Your task to perform on an android device: Open Wikipedia Image 0: 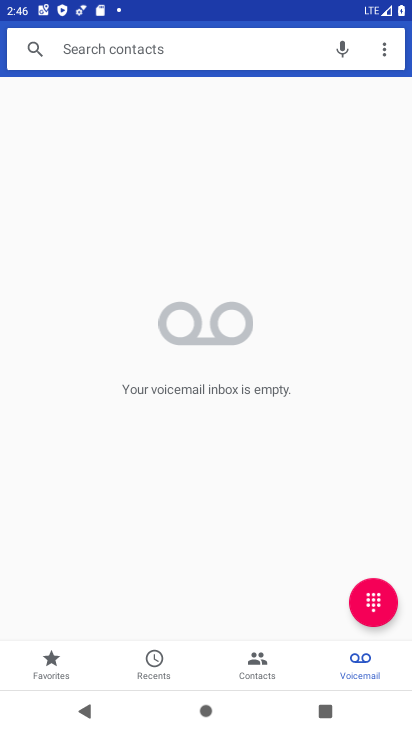
Step 0: press home button
Your task to perform on an android device: Open Wikipedia Image 1: 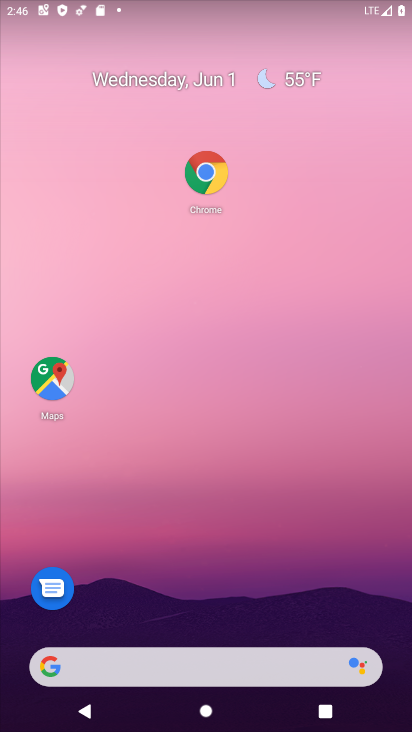
Step 1: click (221, 166)
Your task to perform on an android device: Open Wikipedia Image 2: 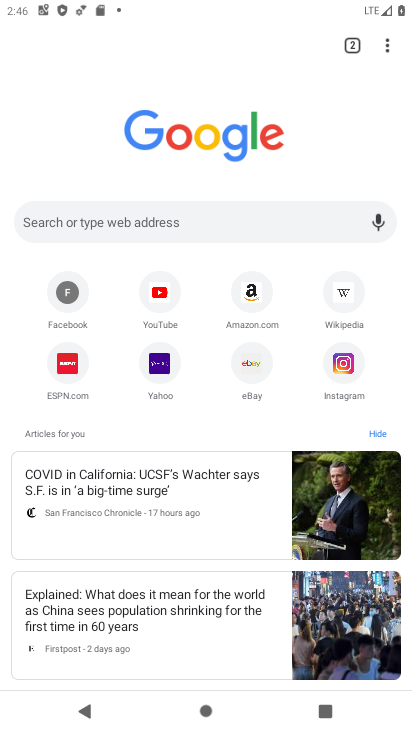
Step 2: click (336, 290)
Your task to perform on an android device: Open Wikipedia Image 3: 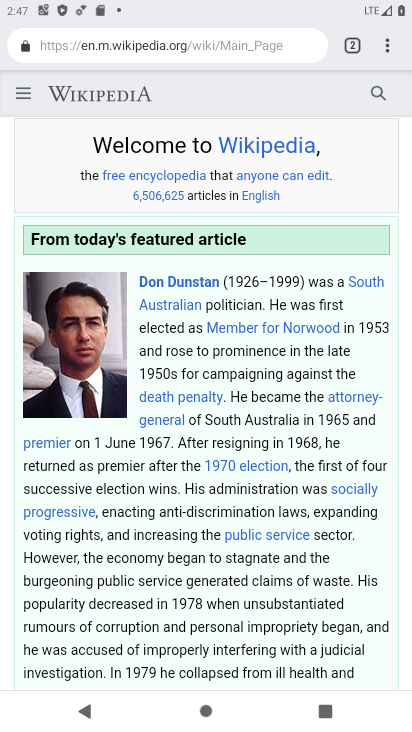
Step 3: task complete